Your task to perform on an android device: Search for acer predator on bestbuy.com, select the first entry, add it to the cart, then select checkout. Image 0: 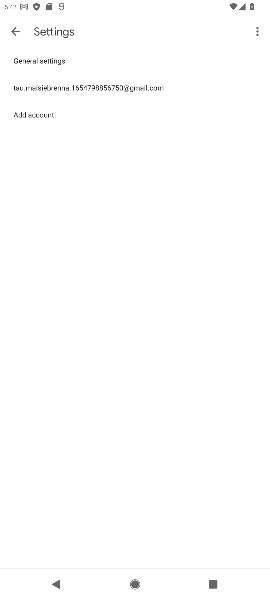
Step 0: press home button
Your task to perform on an android device: Search for acer predator on bestbuy.com, select the first entry, add it to the cart, then select checkout. Image 1: 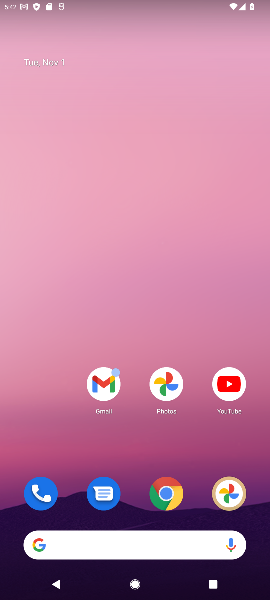
Step 1: click (168, 496)
Your task to perform on an android device: Search for acer predator on bestbuy.com, select the first entry, add it to the cart, then select checkout. Image 2: 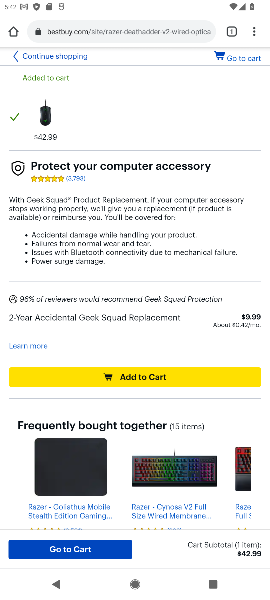
Step 2: click (157, 32)
Your task to perform on an android device: Search for acer predator on bestbuy.com, select the first entry, add it to the cart, then select checkout. Image 3: 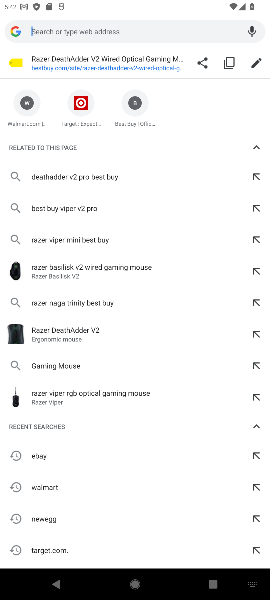
Step 3: type "bestbuy.com"
Your task to perform on an android device: Search for acer predator on bestbuy.com, select the first entry, add it to the cart, then select checkout. Image 4: 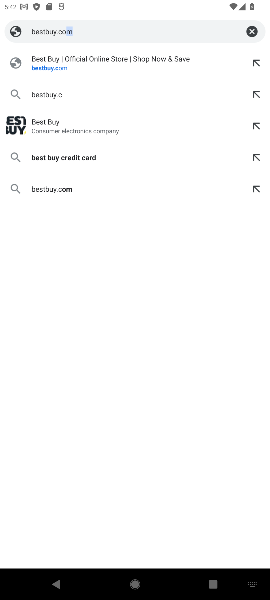
Step 4: press enter
Your task to perform on an android device: Search for acer predator on bestbuy.com, select the first entry, add it to the cart, then select checkout. Image 5: 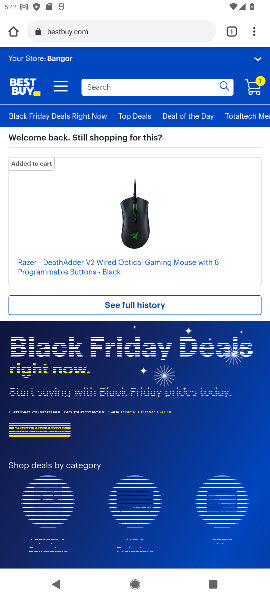
Step 5: click (180, 86)
Your task to perform on an android device: Search for acer predator on bestbuy.com, select the first entry, add it to the cart, then select checkout. Image 6: 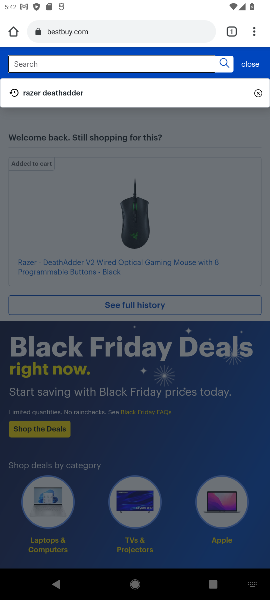
Step 6: type "acer predator"
Your task to perform on an android device: Search for acer predator on bestbuy.com, select the first entry, add it to the cart, then select checkout. Image 7: 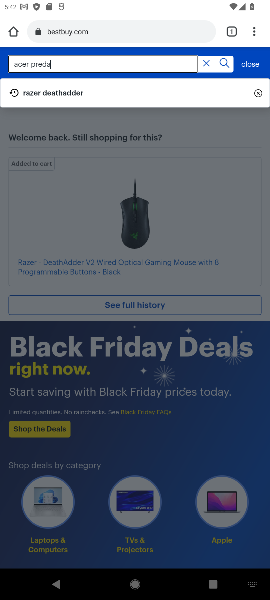
Step 7: press enter
Your task to perform on an android device: Search for acer predator on bestbuy.com, select the first entry, add it to the cart, then select checkout. Image 8: 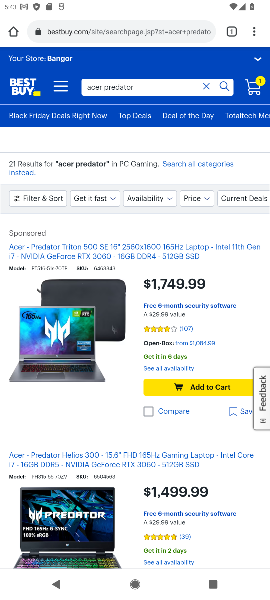
Step 8: click (64, 293)
Your task to perform on an android device: Search for acer predator on bestbuy.com, select the first entry, add it to the cart, then select checkout. Image 9: 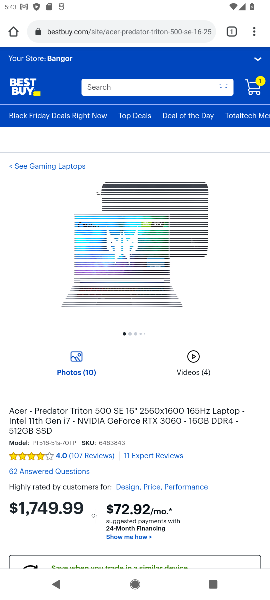
Step 9: drag from (182, 467) to (169, 229)
Your task to perform on an android device: Search for acer predator on bestbuy.com, select the first entry, add it to the cart, then select checkout. Image 10: 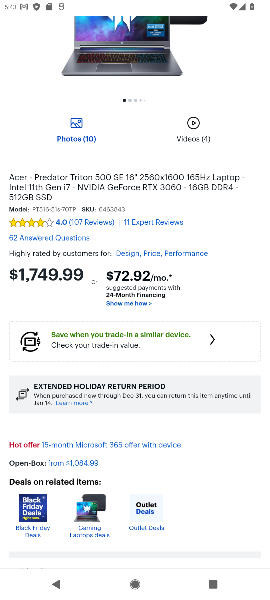
Step 10: drag from (175, 452) to (188, 162)
Your task to perform on an android device: Search for acer predator on bestbuy.com, select the first entry, add it to the cart, then select checkout. Image 11: 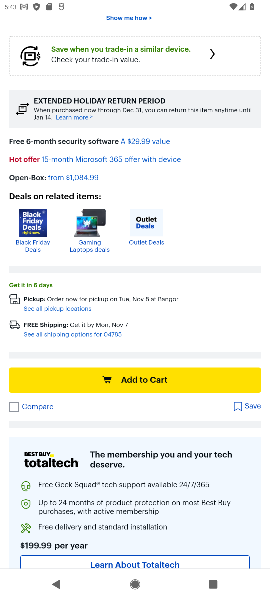
Step 11: click (184, 376)
Your task to perform on an android device: Search for acer predator on bestbuy.com, select the first entry, add it to the cart, then select checkout. Image 12: 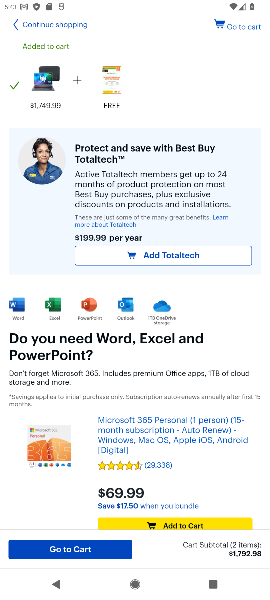
Step 12: click (241, 27)
Your task to perform on an android device: Search for acer predator on bestbuy.com, select the first entry, add it to the cart, then select checkout. Image 13: 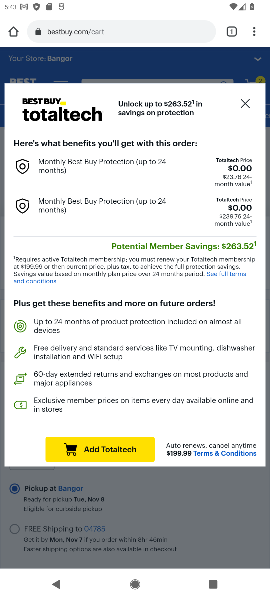
Step 13: click (244, 102)
Your task to perform on an android device: Search for acer predator on bestbuy.com, select the first entry, add it to the cart, then select checkout. Image 14: 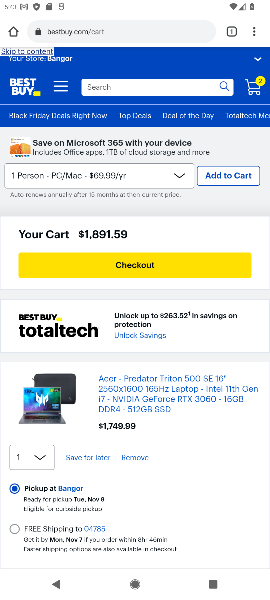
Step 14: click (144, 263)
Your task to perform on an android device: Search for acer predator on bestbuy.com, select the first entry, add it to the cart, then select checkout. Image 15: 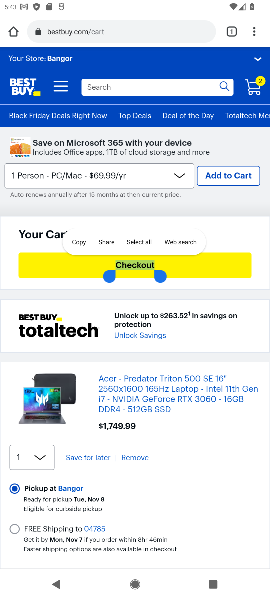
Step 15: click (245, 219)
Your task to perform on an android device: Search for acer predator on bestbuy.com, select the first entry, add it to the cart, then select checkout. Image 16: 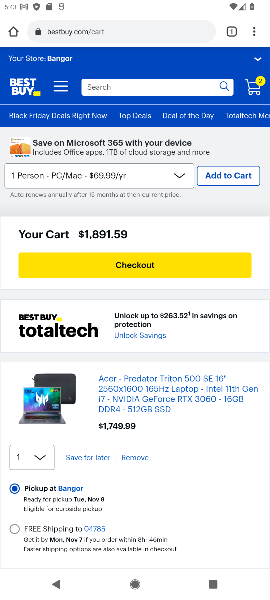
Step 16: click (134, 265)
Your task to perform on an android device: Search for acer predator on bestbuy.com, select the first entry, add it to the cart, then select checkout. Image 17: 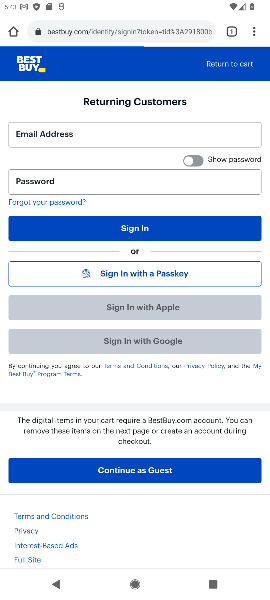
Step 17: task complete